Your task to perform on an android device: set an alarm Image 0: 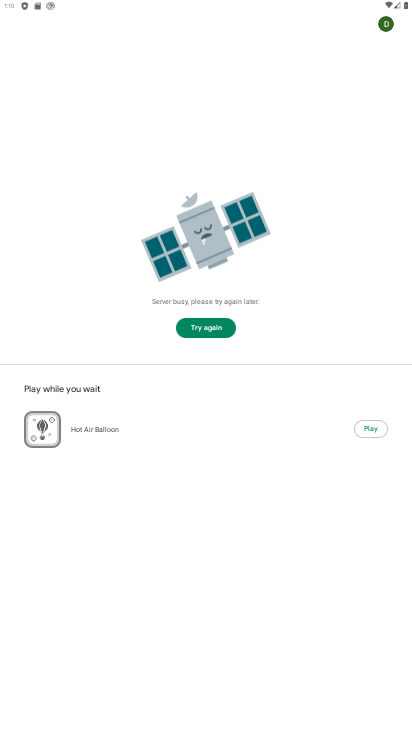
Step 0: press home button
Your task to perform on an android device: set an alarm Image 1: 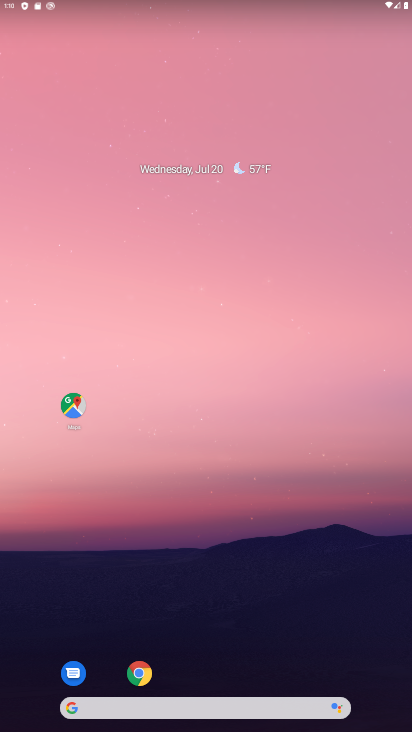
Step 1: drag from (224, 643) to (213, 72)
Your task to perform on an android device: set an alarm Image 2: 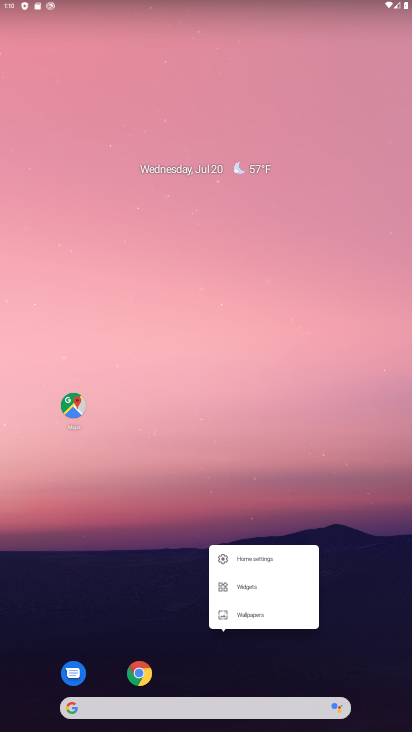
Step 2: click (285, 517)
Your task to perform on an android device: set an alarm Image 3: 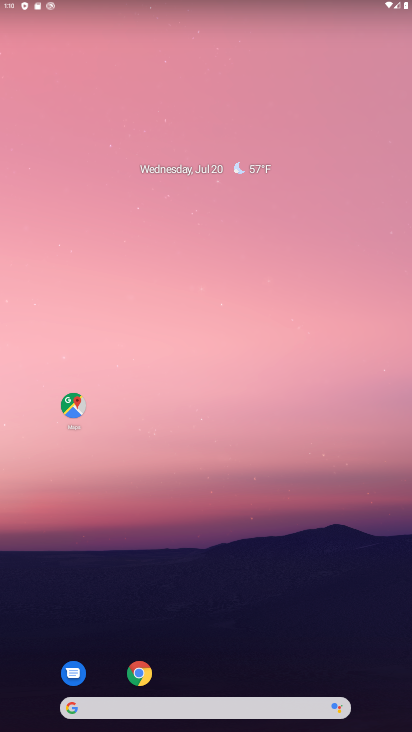
Step 3: drag from (339, 648) to (263, 223)
Your task to perform on an android device: set an alarm Image 4: 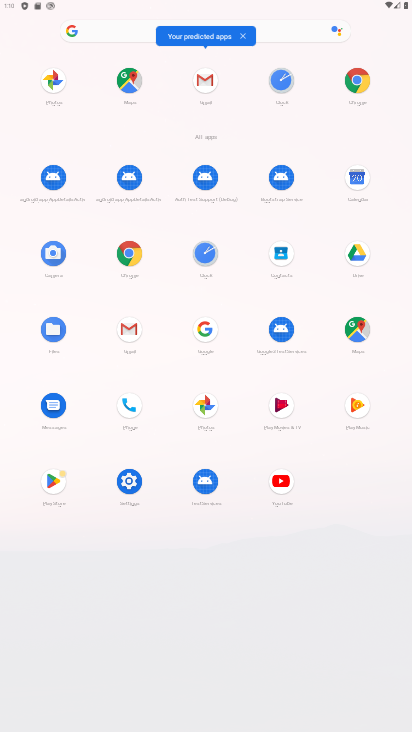
Step 4: click (212, 254)
Your task to perform on an android device: set an alarm Image 5: 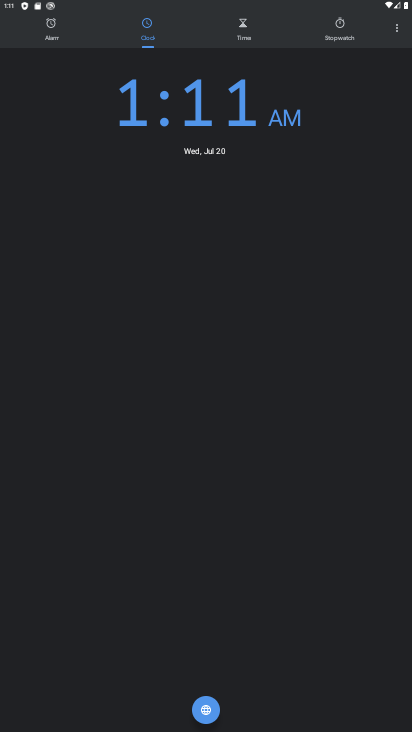
Step 5: click (48, 29)
Your task to perform on an android device: set an alarm Image 6: 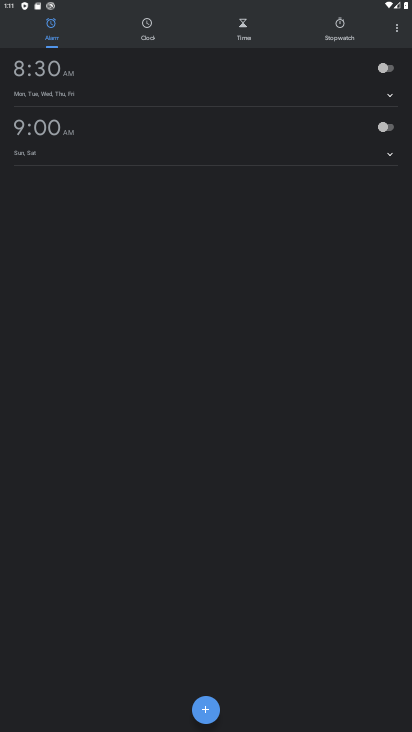
Step 6: click (384, 135)
Your task to perform on an android device: set an alarm Image 7: 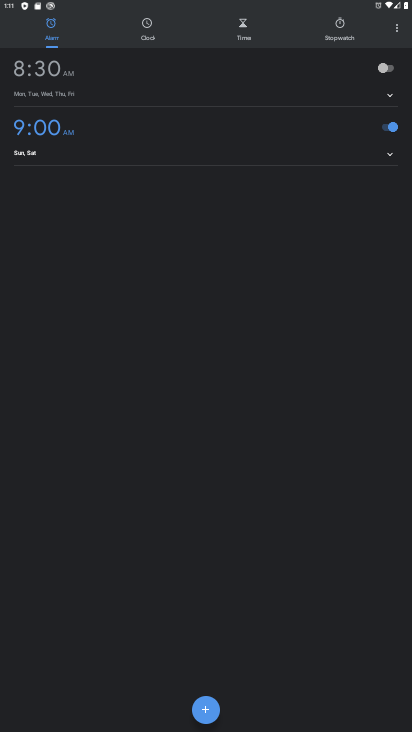
Step 7: task complete